Your task to perform on an android device: Open Yahoo.com Image 0: 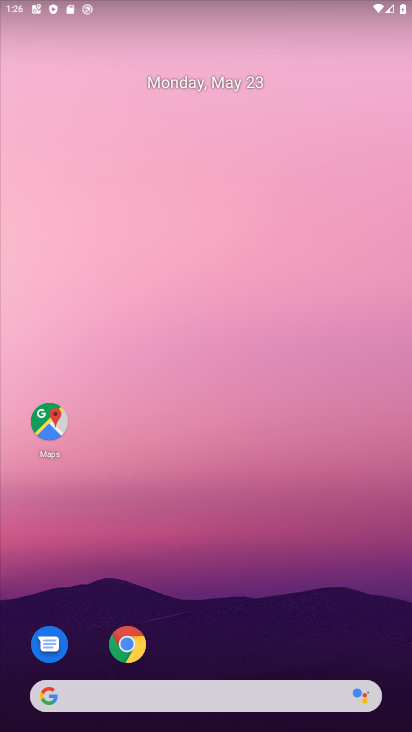
Step 0: drag from (255, 522) to (251, 21)
Your task to perform on an android device: Open Yahoo.com Image 1: 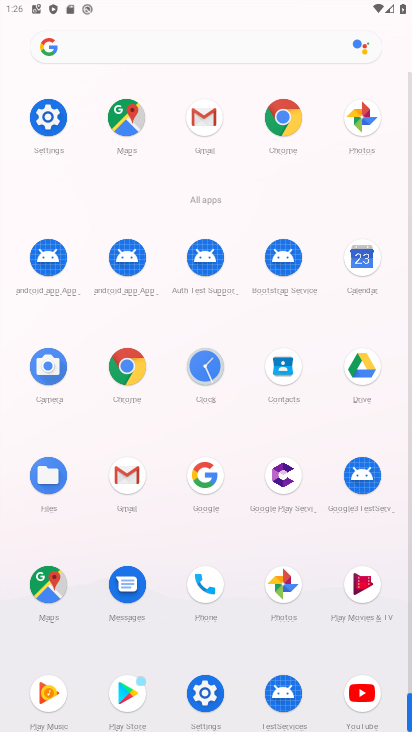
Step 1: drag from (10, 609) to (14, 223)
Your task to perform on an android device: Open Yahoo.com Image 2: 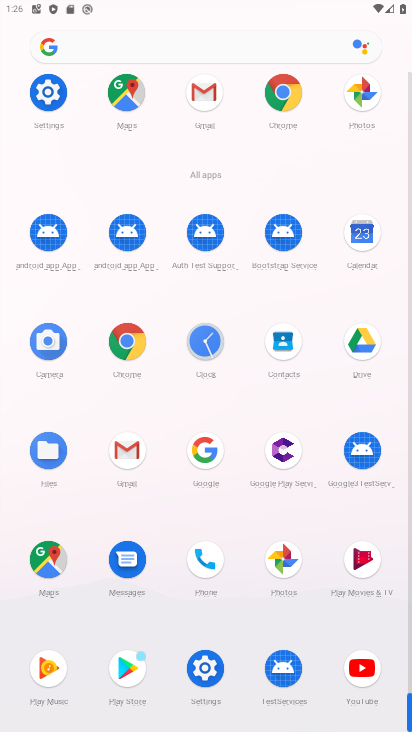
Step 2: click (124, 335)
Your task to perform on an android device: Open Yahoo.com Image 3: 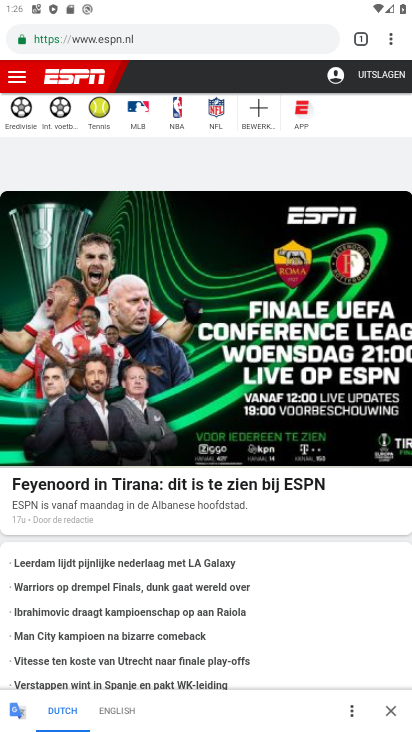
Step 3: click (168, 34)
Your task to perform on an android device: Open Yahoo.com Image 4: 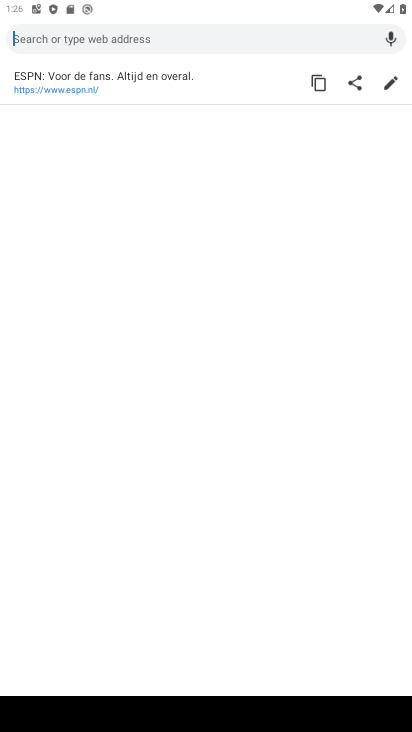
Step 4: type "Yahoo.com"
Your task to perform on an android device: Open Yahoo.com Image 5: 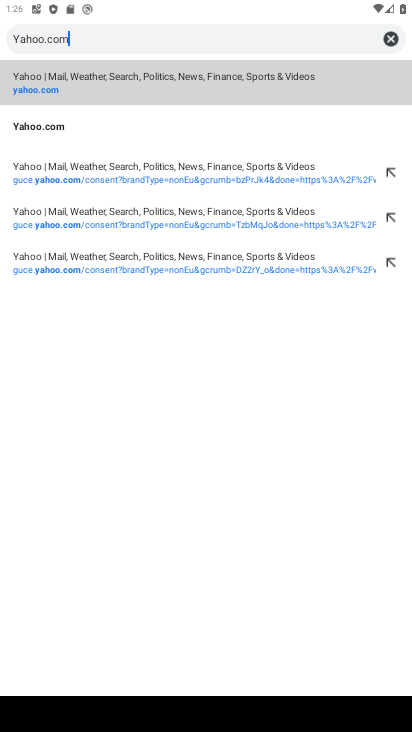
Step 5: type ""
Your task to perform on an android device: Open Yahoo.com Image 6: 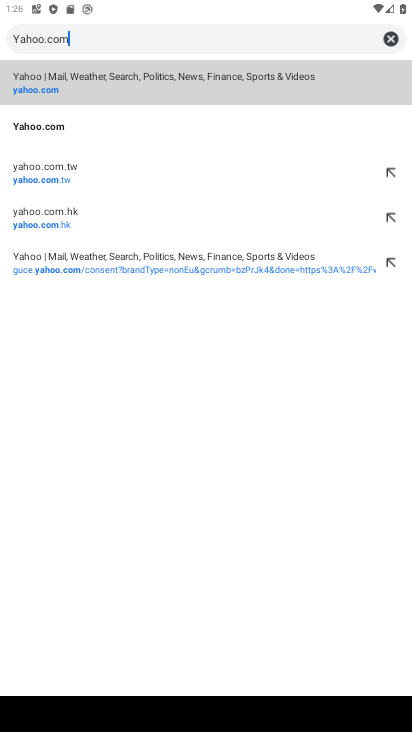
Step 6: click (114, 78)
Your task to perform on an android device: Open Yahoo.com Image 7: 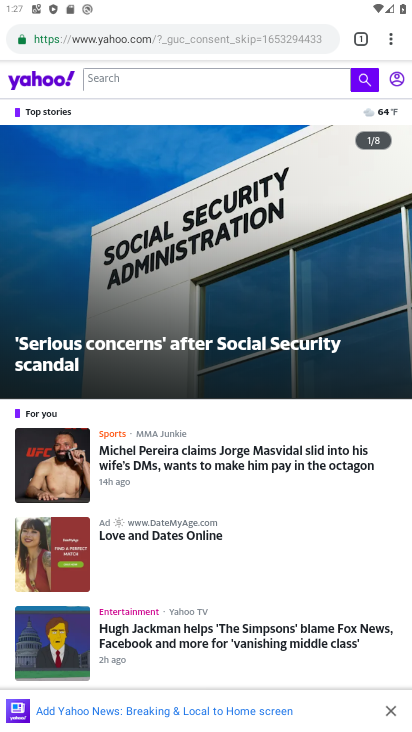
Step 7: task complete